Your task to perform on an android device: check android version Image 0: 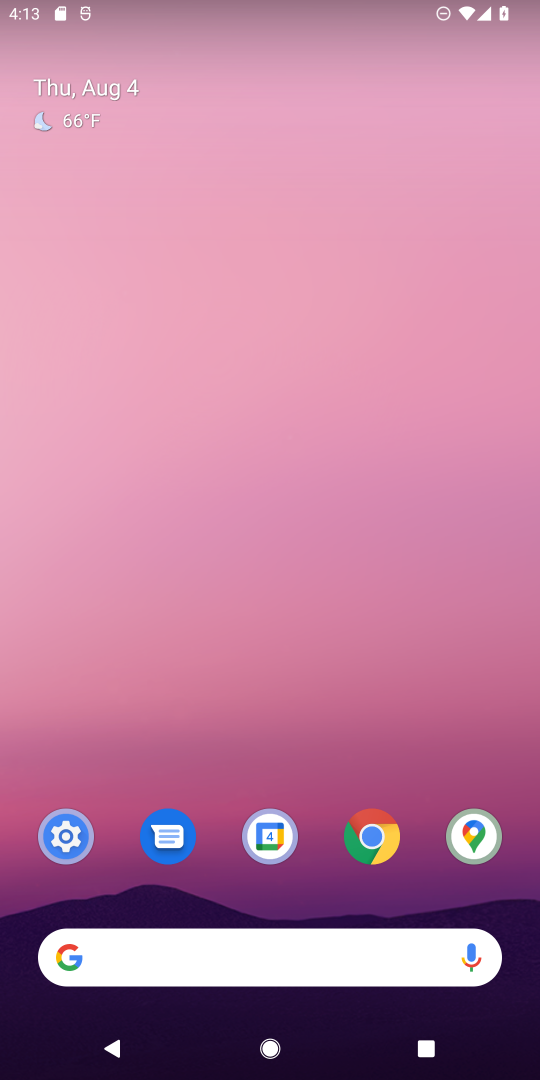
Step 0: click (45, 852)
Your task to perform on an android device: check android version Image 1: 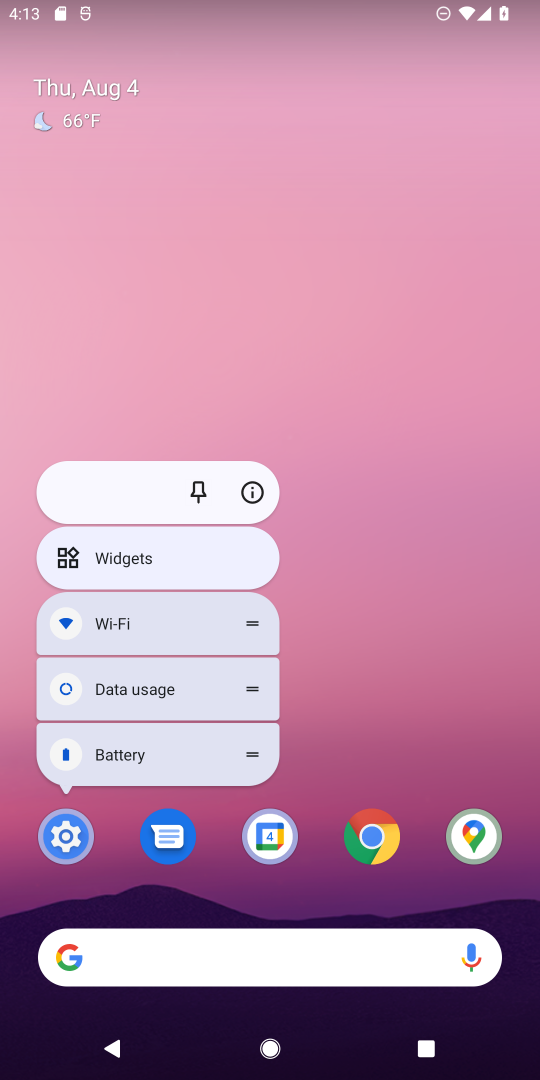
Step 1: click (52, 847)
Your task to perform on an android device: check android version Image 2: 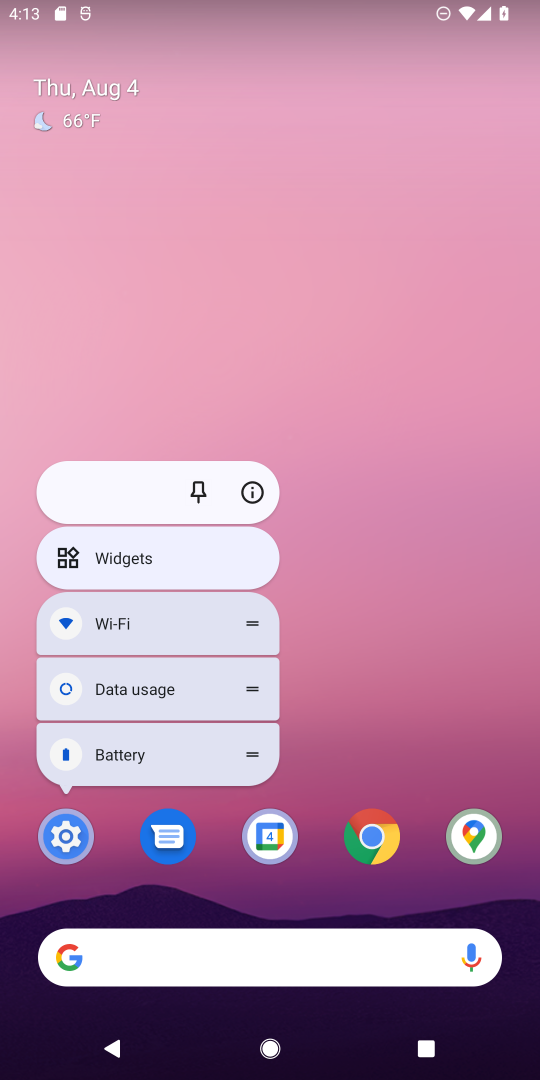
Step 2: click (52, 847)
Your task to perform on an android device: check android version Image 3: 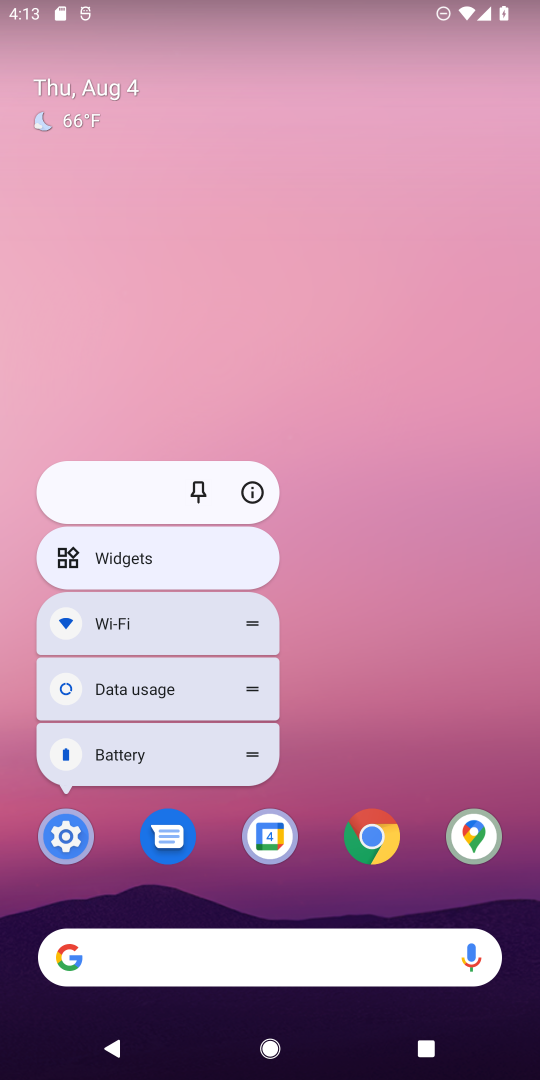
Step 3: click (52, 847)
Your task to perform on an android device: check android version Image 4: 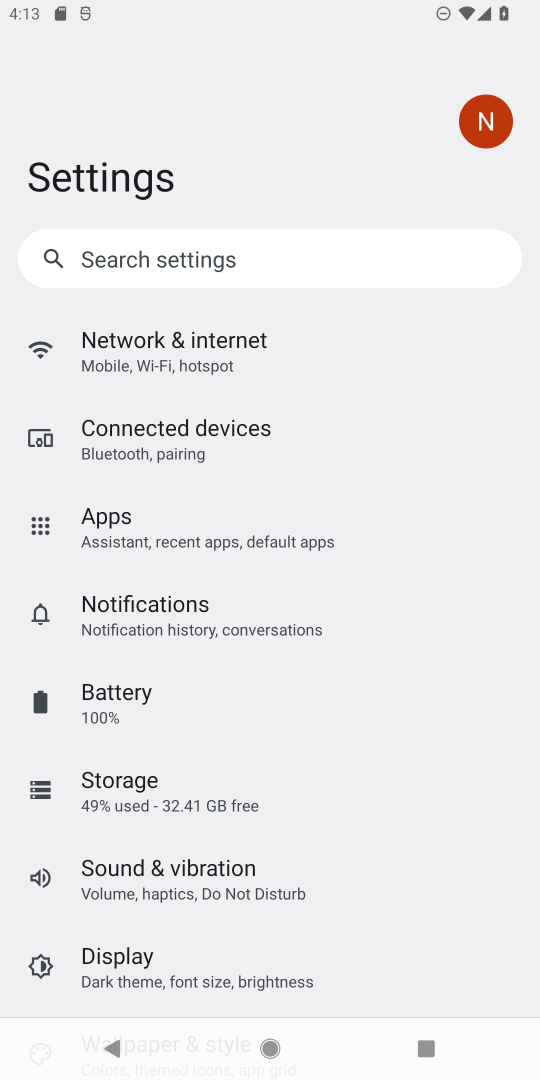
Step 4: drag from (361, 877) to (402, 41)
Your task to perform on an android device: check android version Image 5: 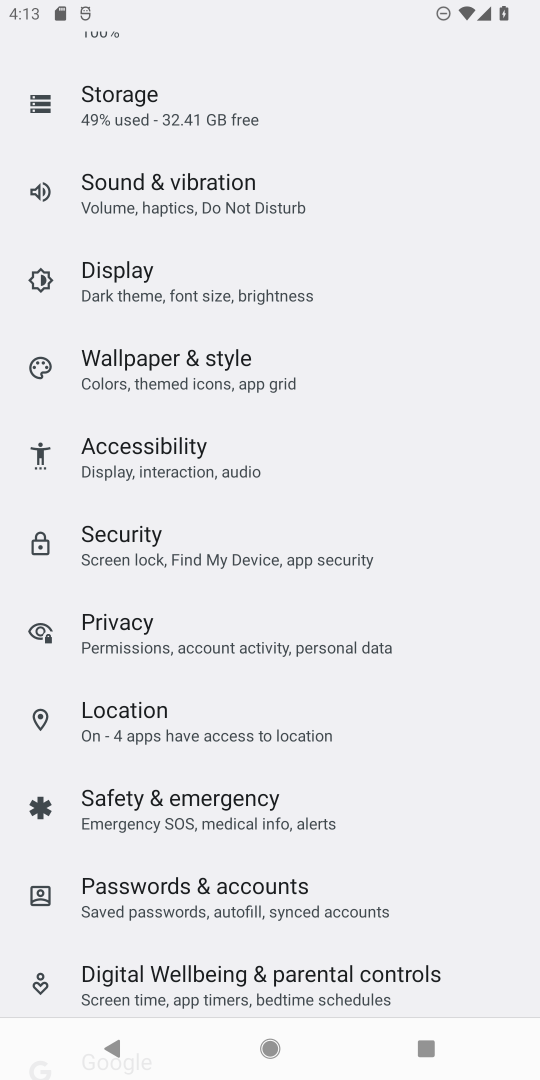
Step 5: drag from (357, 608) to (289, 1)
Your task to perform on an android device: check android version Image 6: 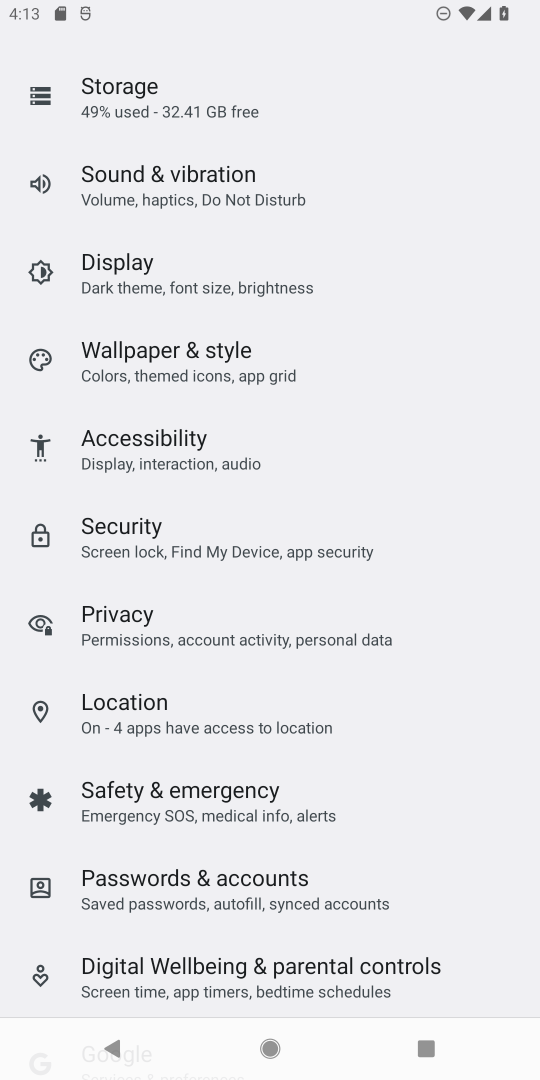
Step 6: drag from (307, 782) to (503, 1075)
Your task to perform on an android device: check android version Image 7: 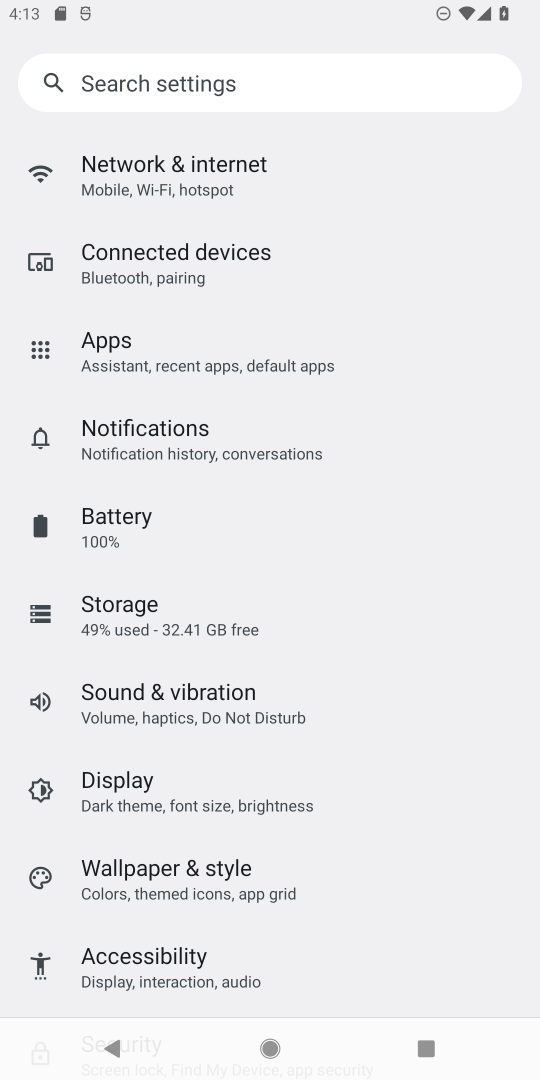
Step 7: drag from (322, 770) to (492, 16)
Your task to perform on an android device: check android version Image 8: 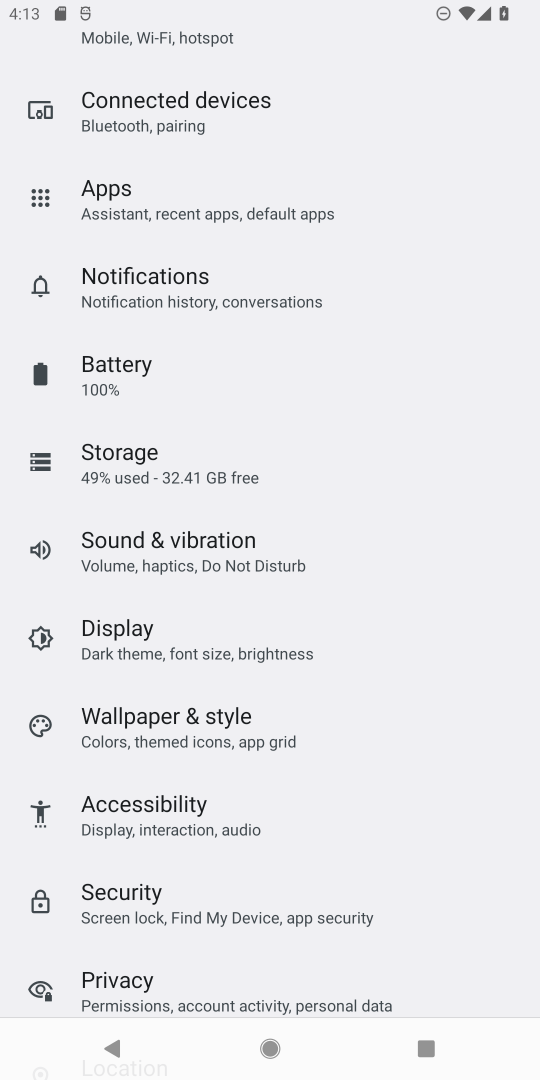
Step 8: drag from (367, 874) to (433, 19)
Your task to perform on an android device: check android version Image 9: 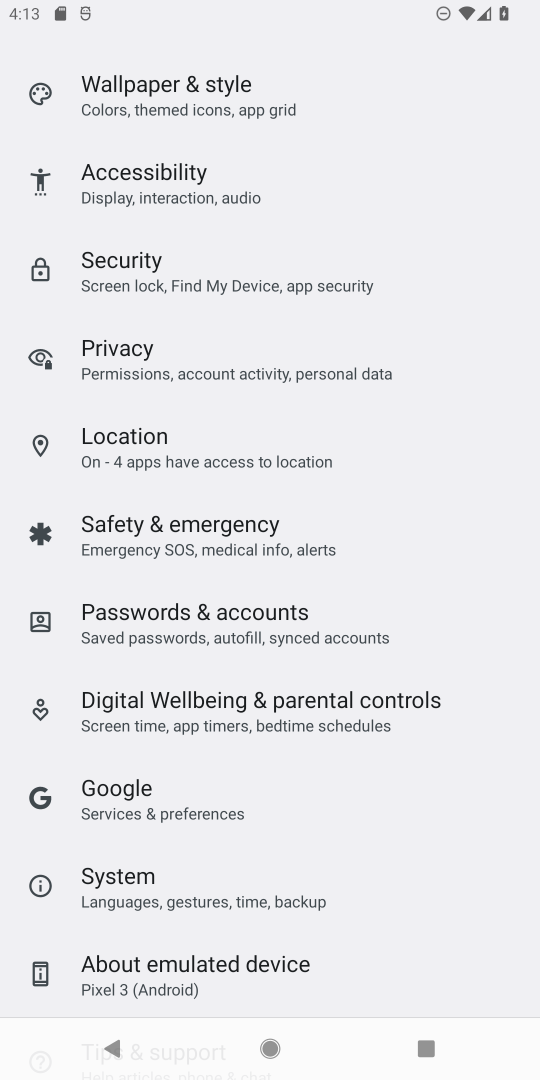
Step 9: drag from (388, 662) to (470, 190)
Your task to perform on an android device: check android version Image 10: 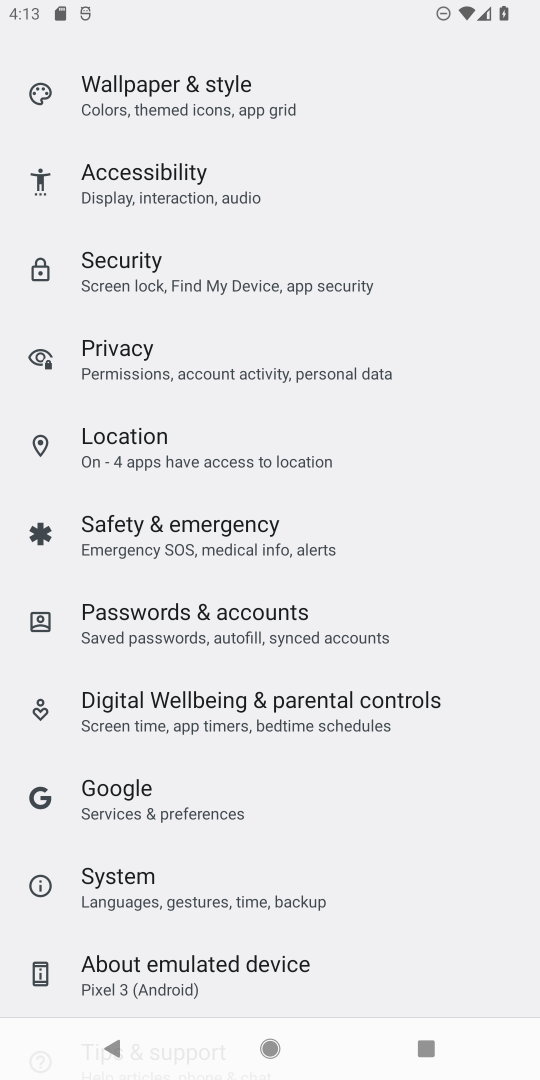
Step 10: click (259, 971)
Your task to perform on an android device: check android version Image 11: 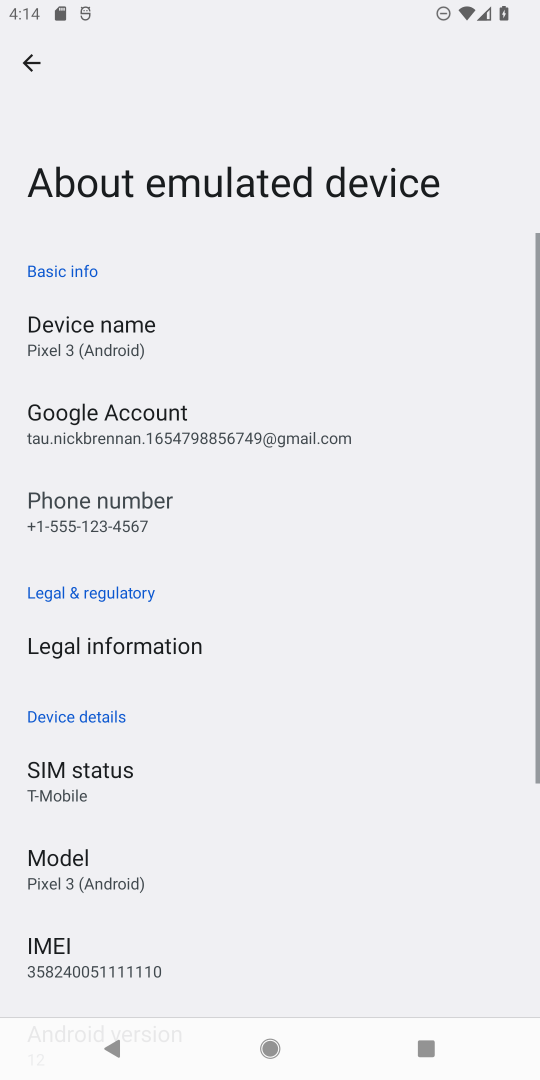
Step 11: task complete